Your task to perform on an android device: Show me the alarms in the clock app Image 0: 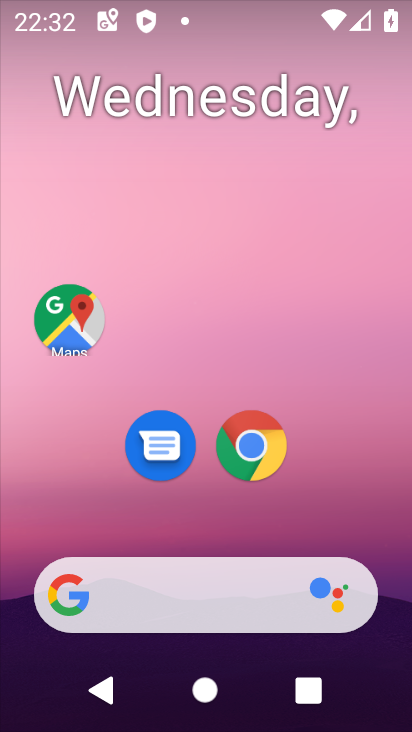
Step 0: drag from (317, 566) to (366, 184)
Your task to perform on an android device: Show me the alarms in the clock app Image 1: 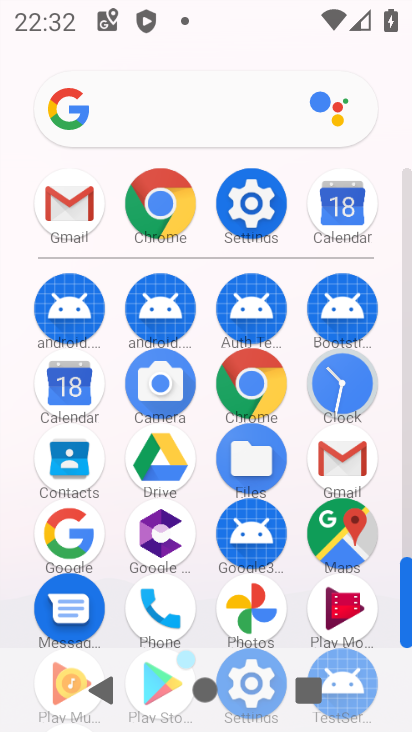
Step 1: click (348, 382)
Your task to perform on an android device: Show me the alarms in the clock app Image 2: 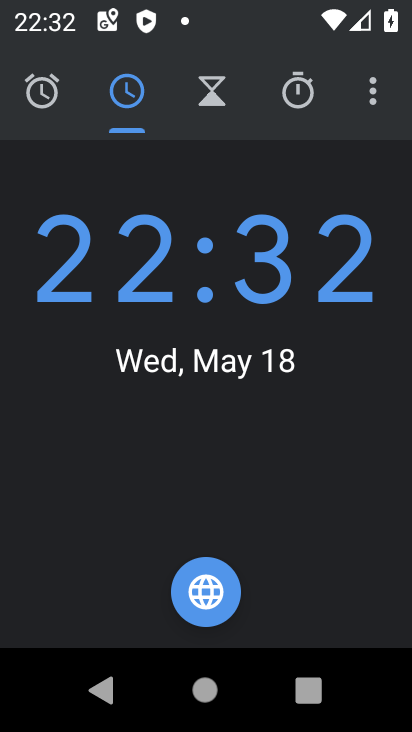
Step 2: click (55, 98)
Your task to perform on an android device: Show me the alarms in the clock app Image 3: 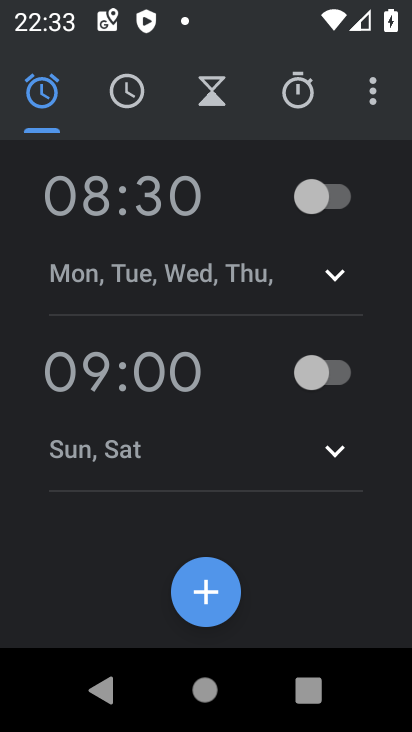
Step 3: task complete